Your task to perform on an android device: turn off location history Image 0: 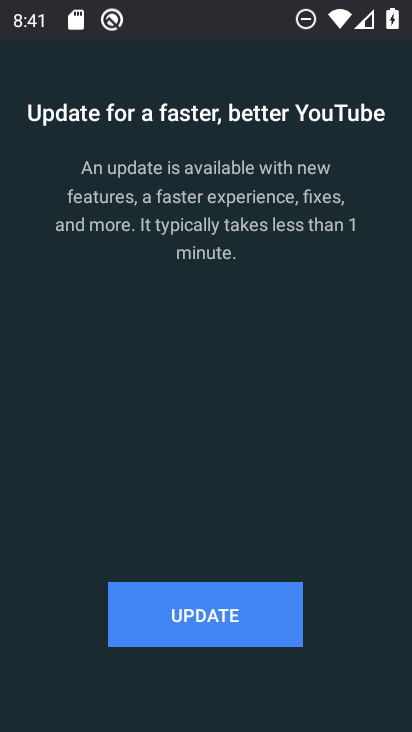
Step 0: press home button
Your task to perform on an android device: turn off location history Image 1: 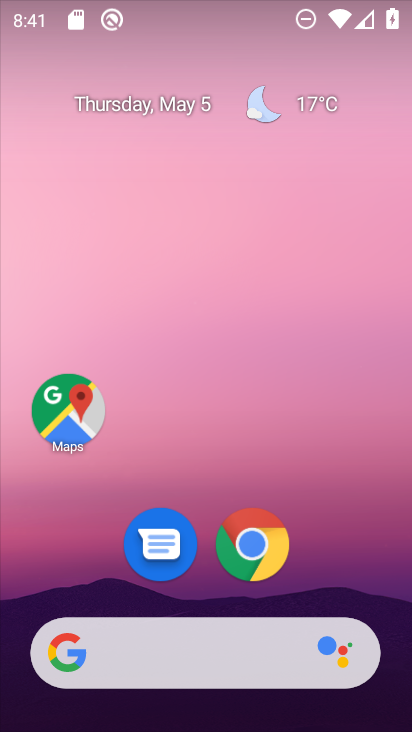
Step 1: drag from (372, 601) to (298, 98)
Your task to perform on an android device: turn off location history Image 2: 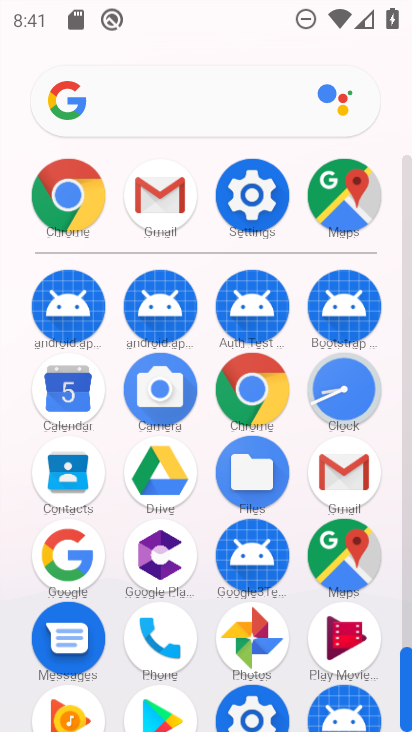
Step 2: click (261, 188)
Your task to perform on an android device: turn off location history Image 3: 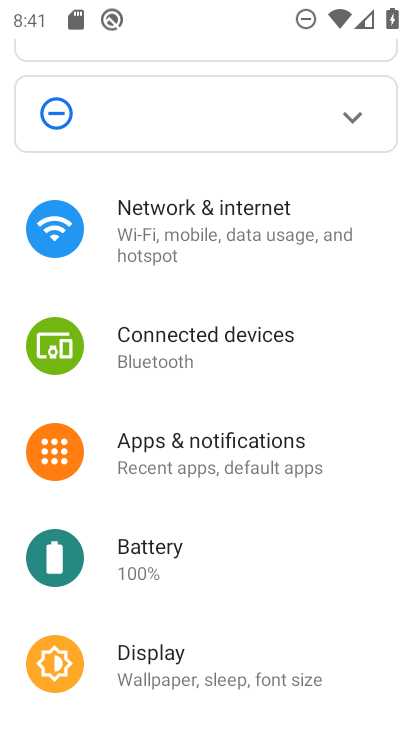
Step 3: drag from (162, 610) to (201, 341)
Your task to perform on an android device: turn off location history Image 4: 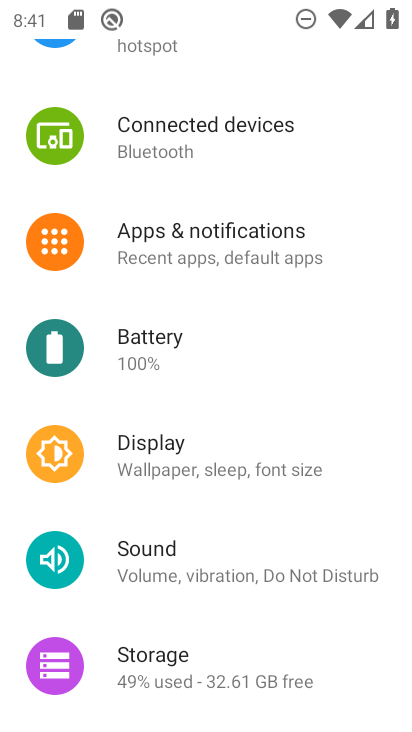
Step 4: drag from (122, 623) to (195, 107)
Your task to perform on an android device: turn off location history Image 5: 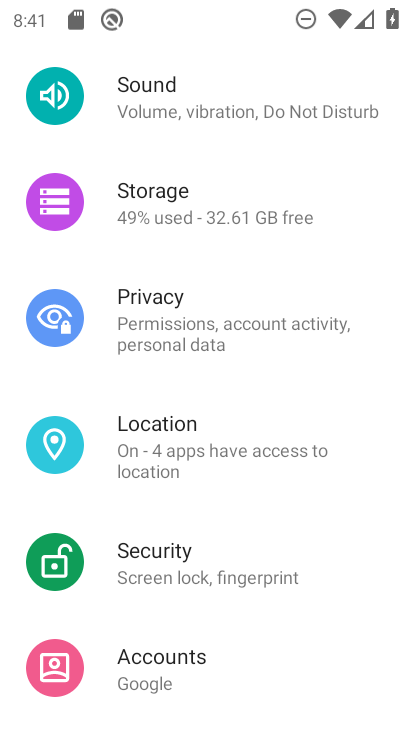
Step 5: click (199, 471)
Your task to perform on an android device: turn off location history Image 6: 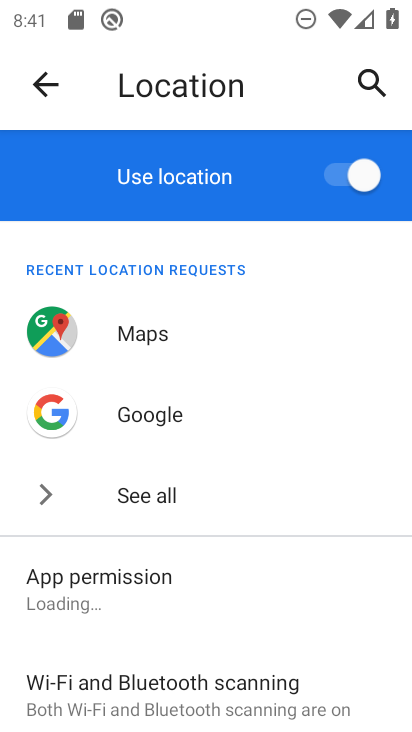
Step 6: drag from (231, 665) to (286, 191)
Your task to perform on an android device: turn off location history Image 7: 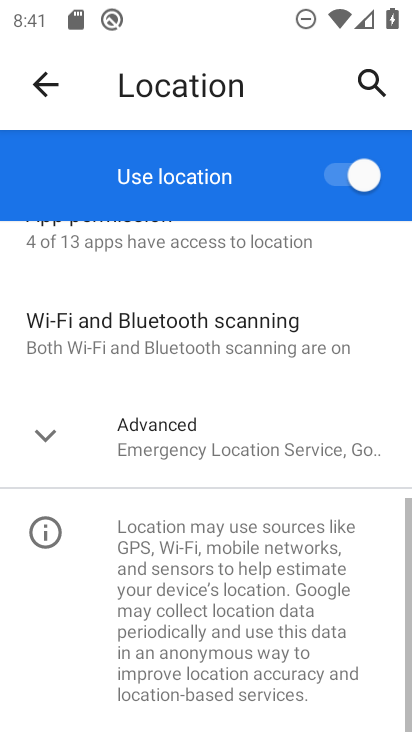
Step 7: click (28, 433)
Your task to perform on an android device: turn off location history Image 8: 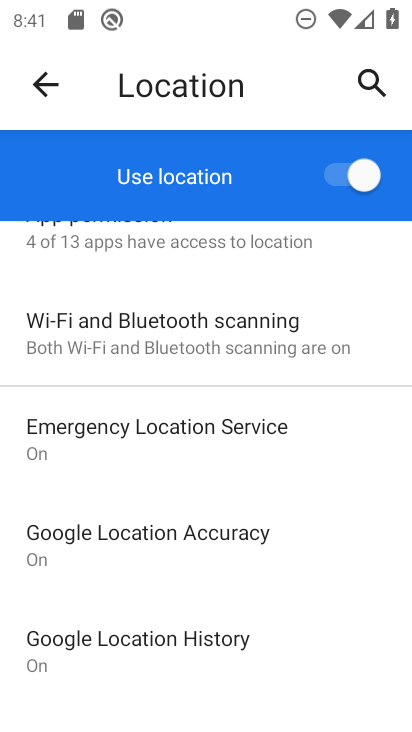
Step 8: click (196, 646)
Your task to perform on an android device: turn off location history Image 9: 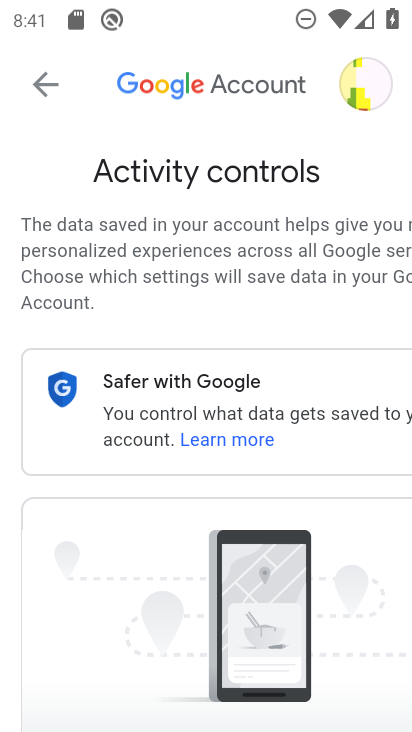
Step 9: drag from (162, 598) to (131, 138)
Your task to perform on an android device: turn off location history Image 10: 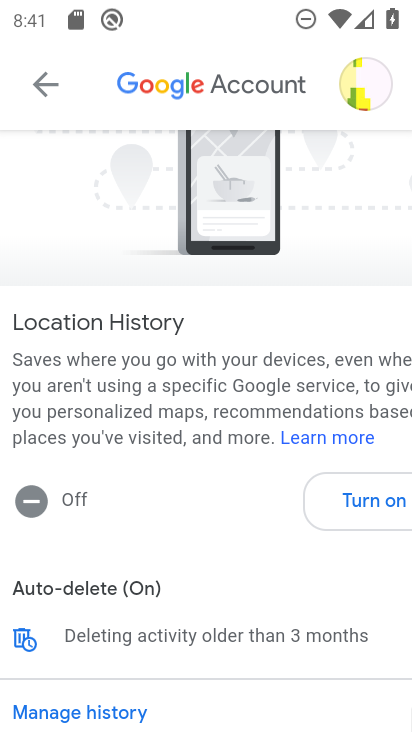
Step 10: click (357, 507)
Your task to perform on an android device: turn off location history Image 11: 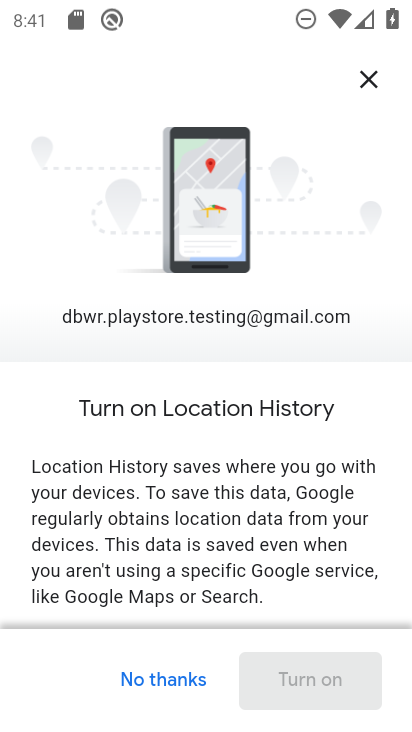
Step 11: task complete